Your task to perform on an android device: Search for "lg ultragear" on ebay, select the first entry, add it to the cart, then select checkout. Image 0: 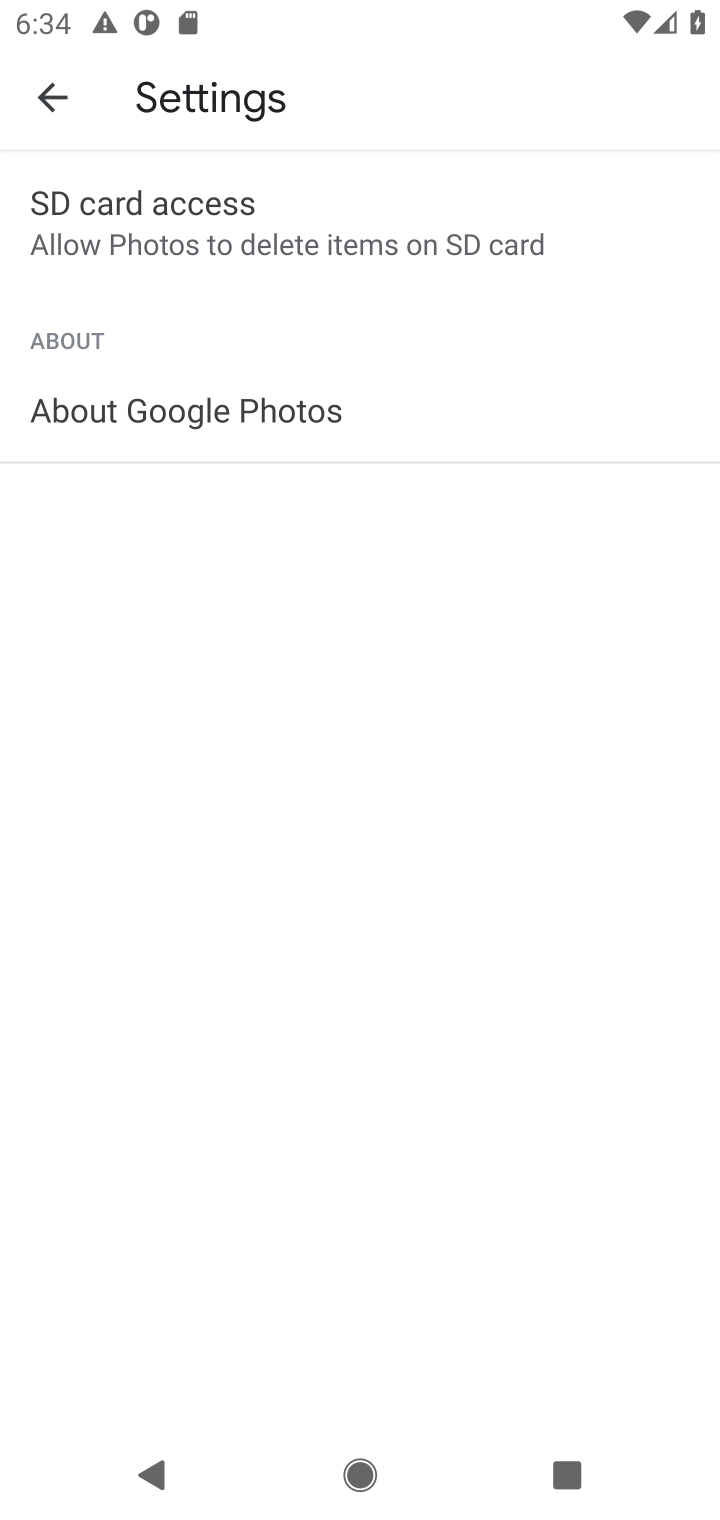
Step 0: press home button
Your task to perform on an android device: Search for "lg ultragear" on ebay, select the first entry, add it to the cart, then select checkout. Image 1: 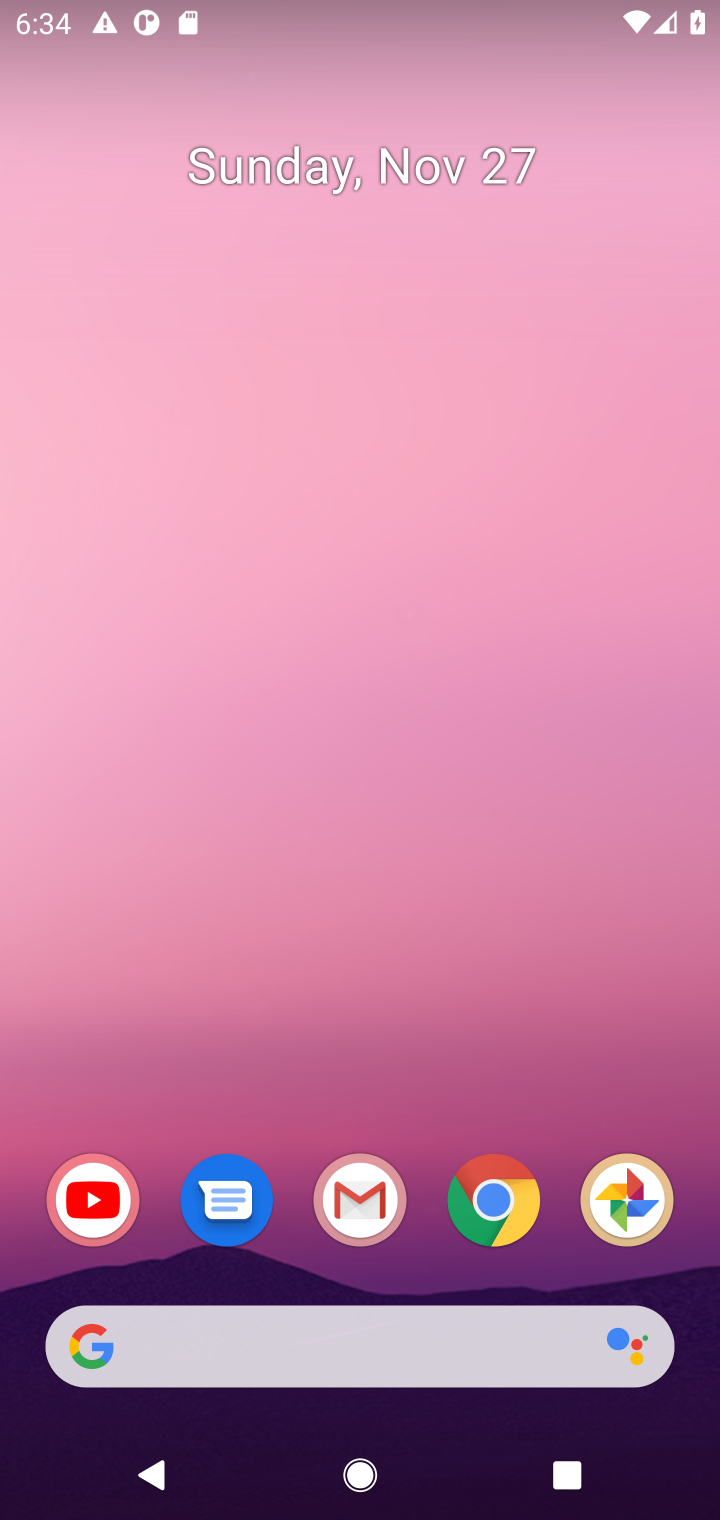
Step 1: click (499, 1222)
Your task to perform on an android device: Search for "lg ultragear" on ebay, select the first entry, add it to the cart, then select checkout. Image 2: 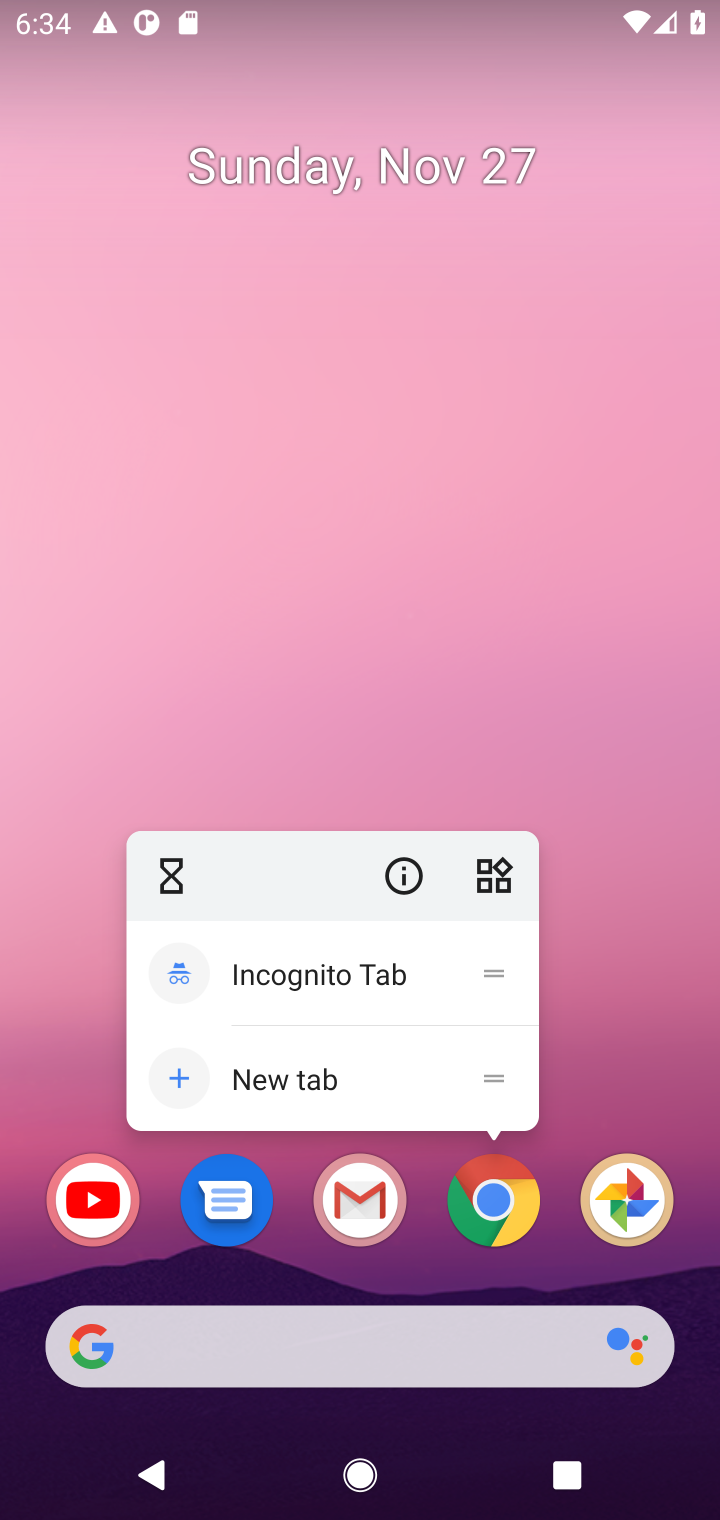
Step 2: click (493, 1211)
Your task to perform on an android device: Search for "lg ultragear" on ebay, select the first entry, add it to the cart, then select checkout. Image 3: 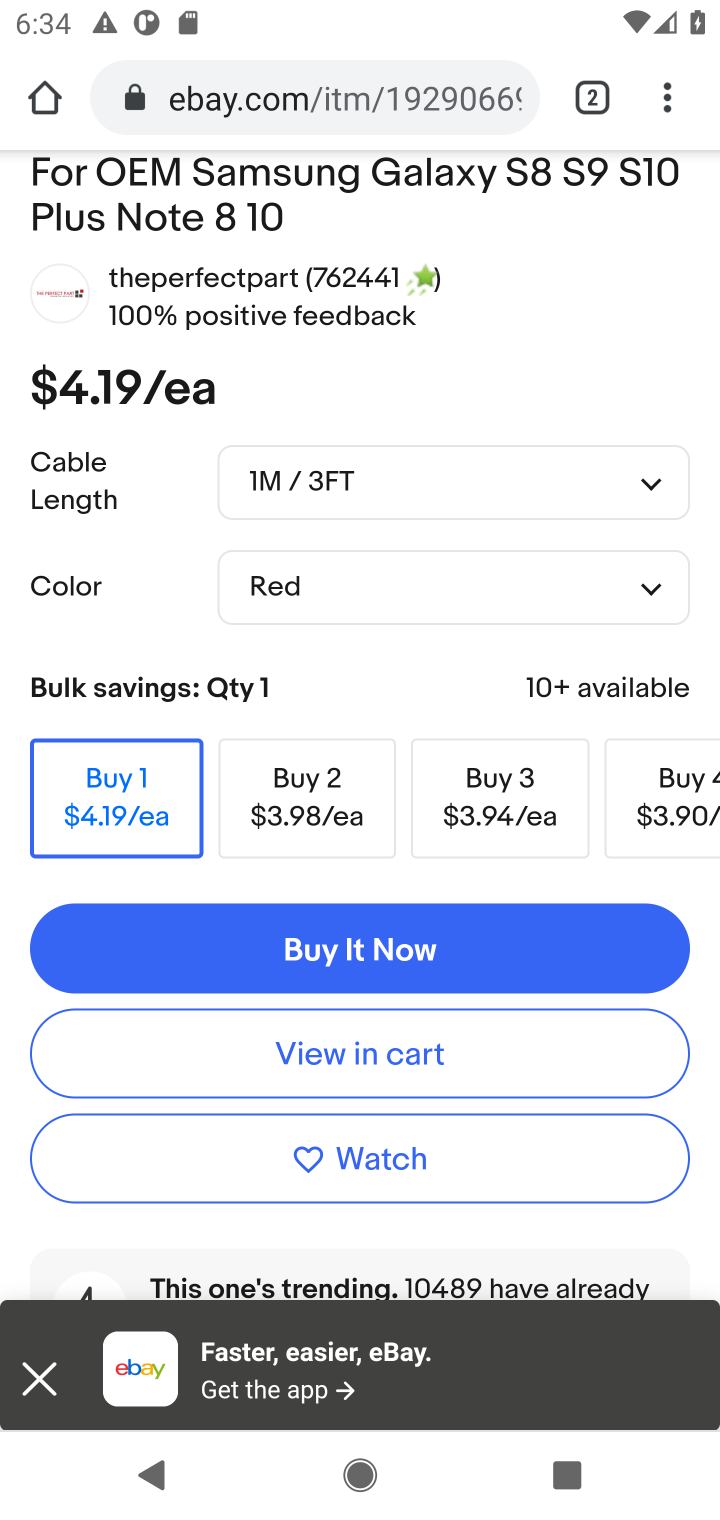
Step 3: drag from (555, 276) to (466, 977)
Your task to perform on an android device: Search for "lg ultragear" on ebay, select the first entry, add it to the cart, then select checkout. Image 4: 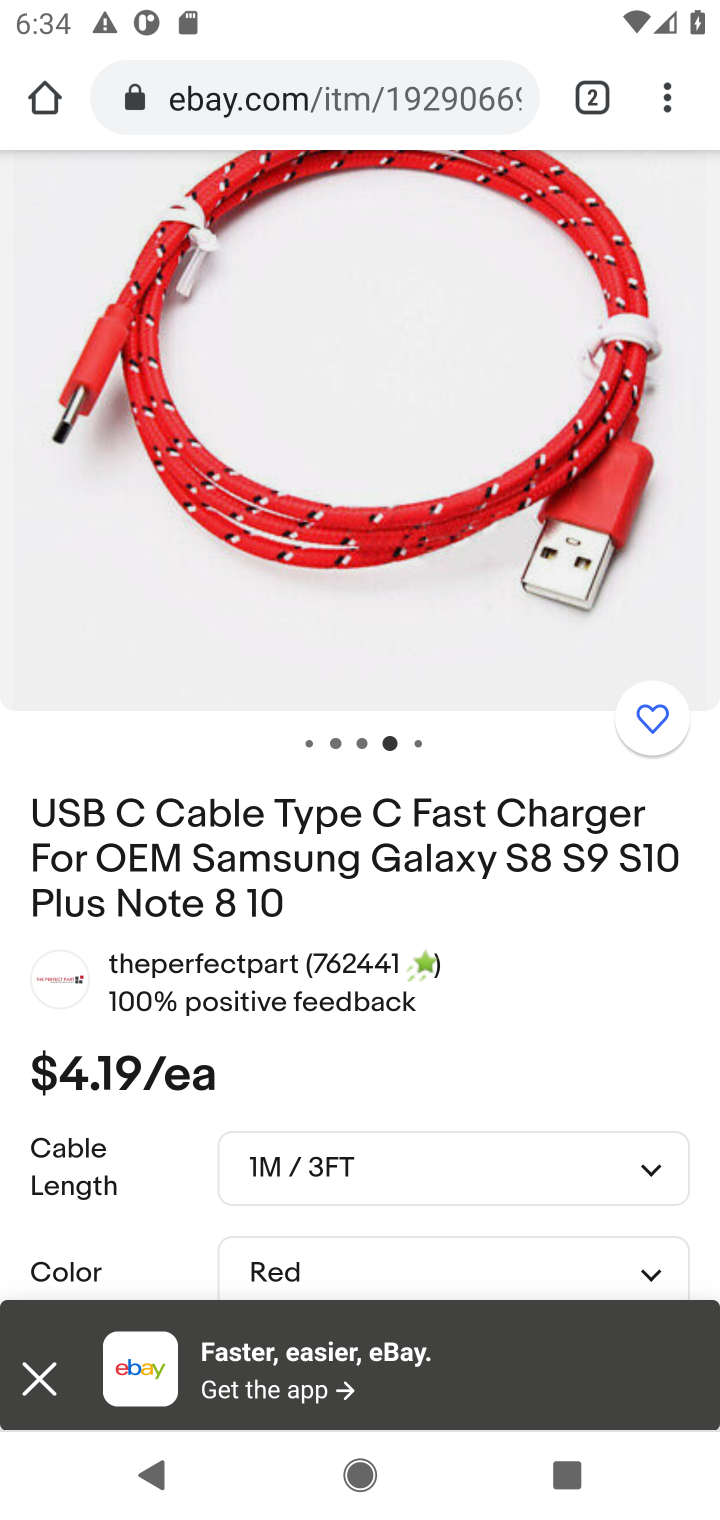
Step 4: drag from (486, 570) to (428, 1107)
Your task to perform on an android device: Search for "lg ultragear" on ebay, select the first entry, add it to the cart, then select checkout. Image 5: 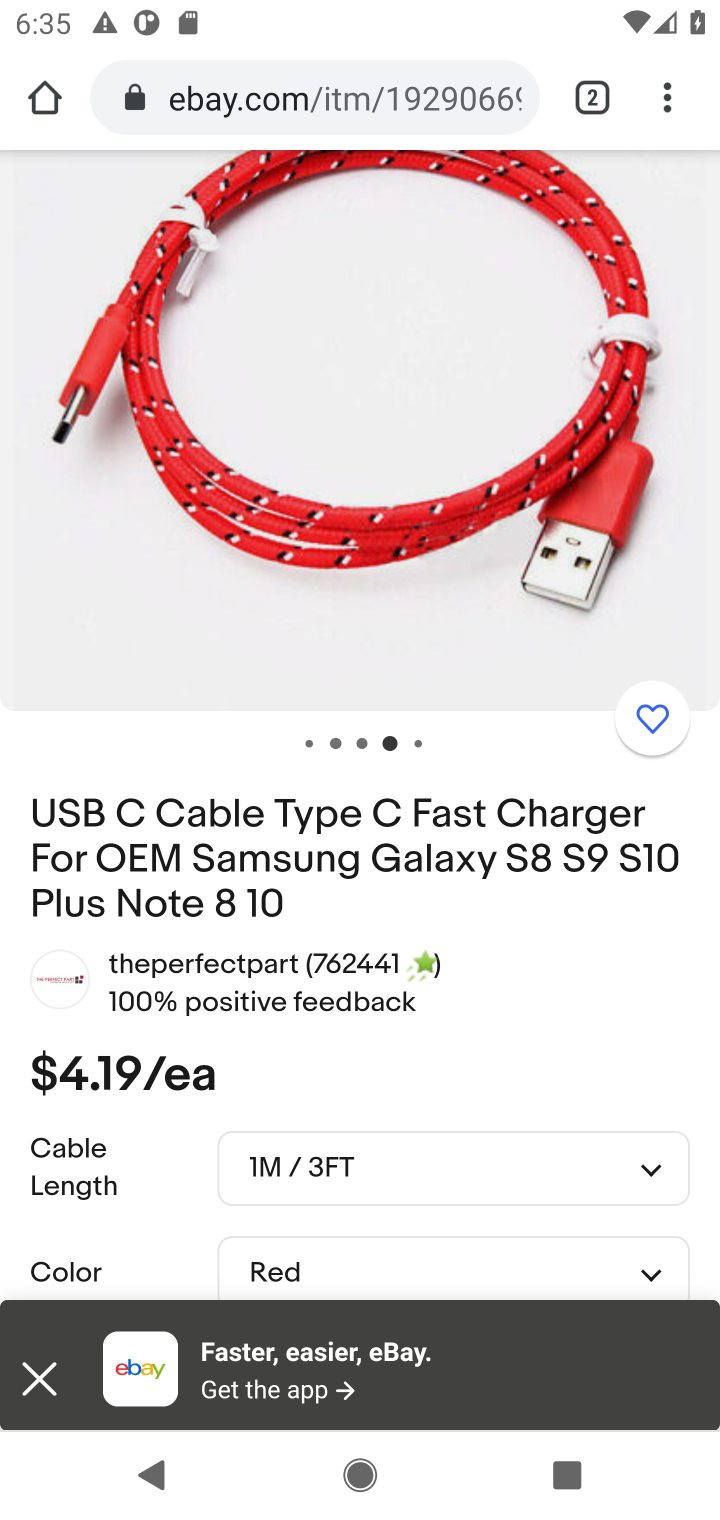
Step 5: drag from (331, 480) to (370, 1023)
Your task to perform on an android device: Search for "lg ultragear" on ebay, select the first entry, add it to the cart, then select checkout. Image 6: 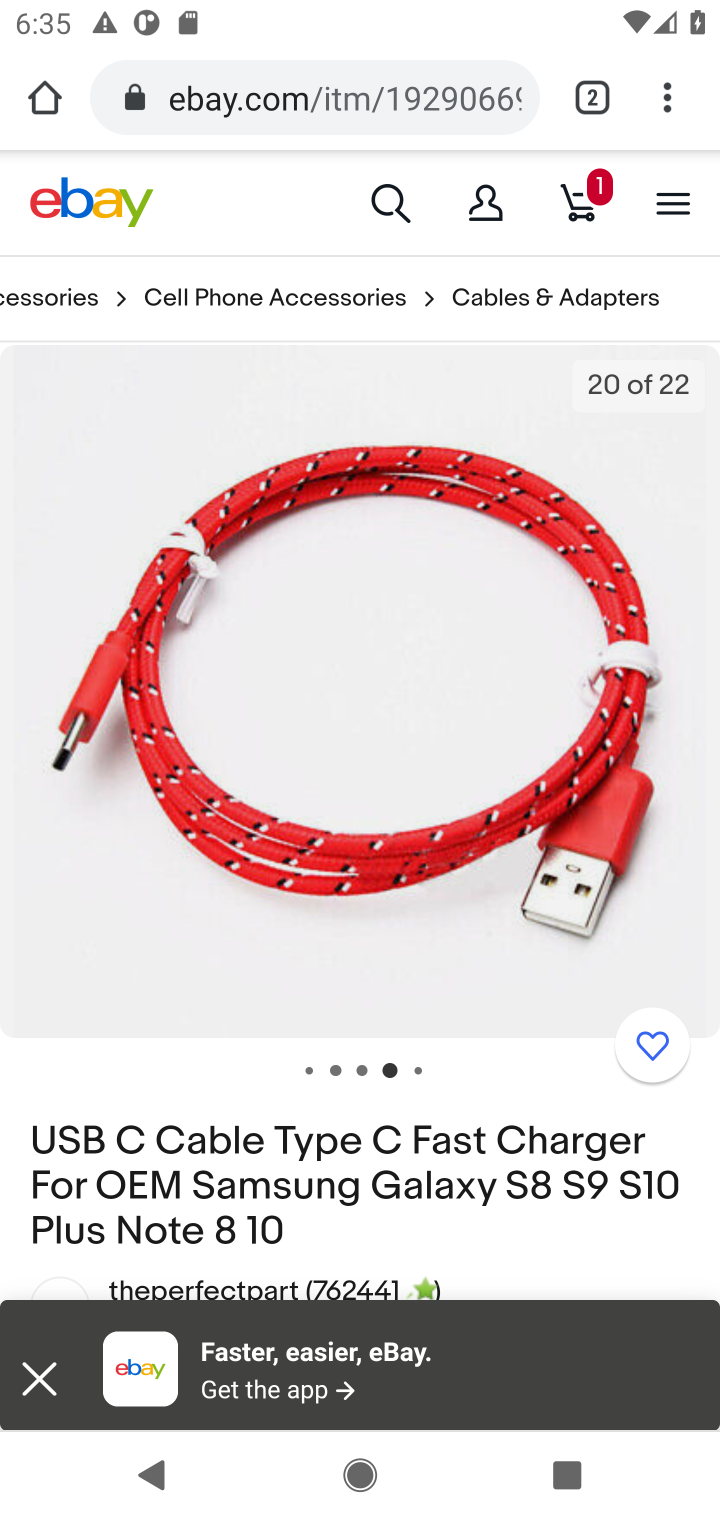
Step 6: click (382, 205)
Your task to perform on an android device: Search for "lg ultragear" on ebay, select the first entry, add it to the cart, then select checkout. Image 7: 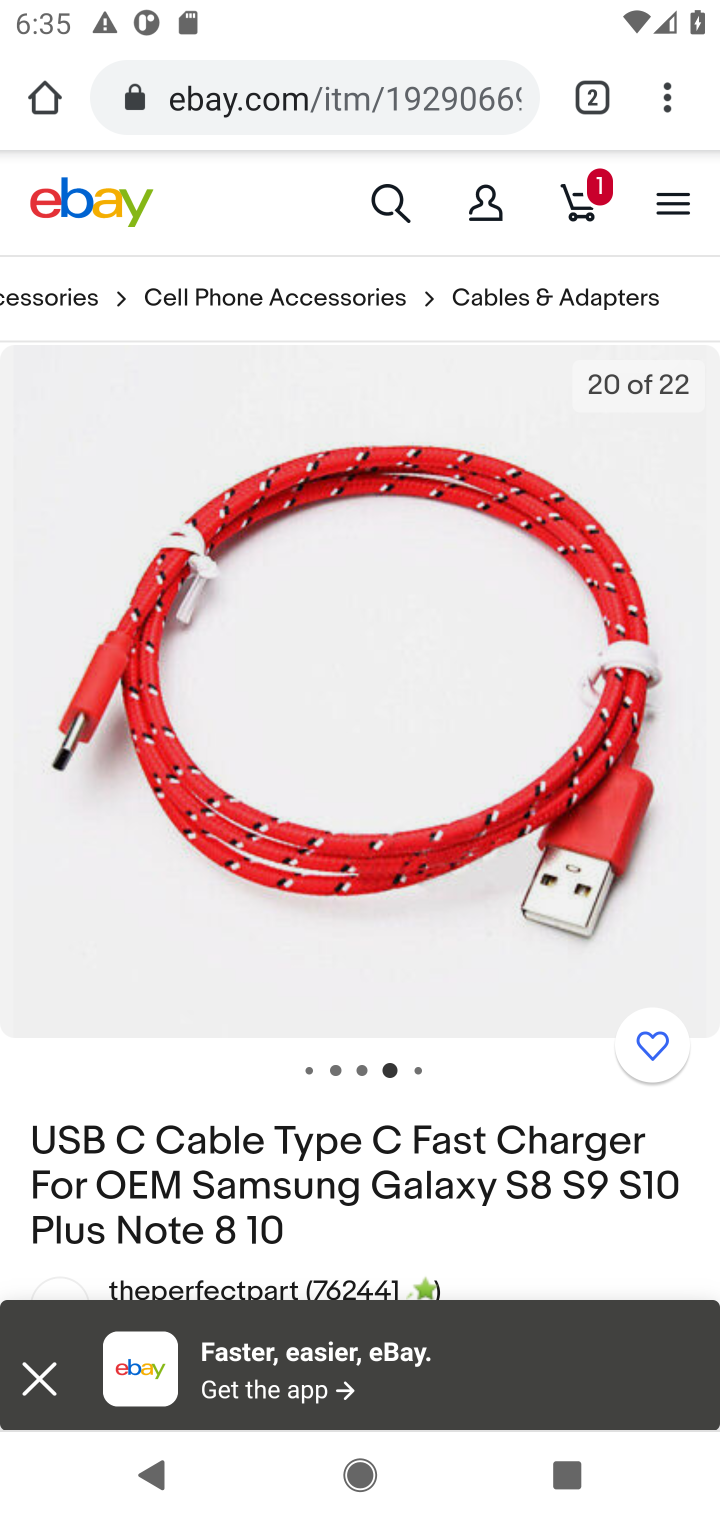
Step 7: click (390, 200)
Your task to perform on an android device: Search for "lg ultragear" on ebay, select the first entry, add it to the cart, then select checkout. Image 8: 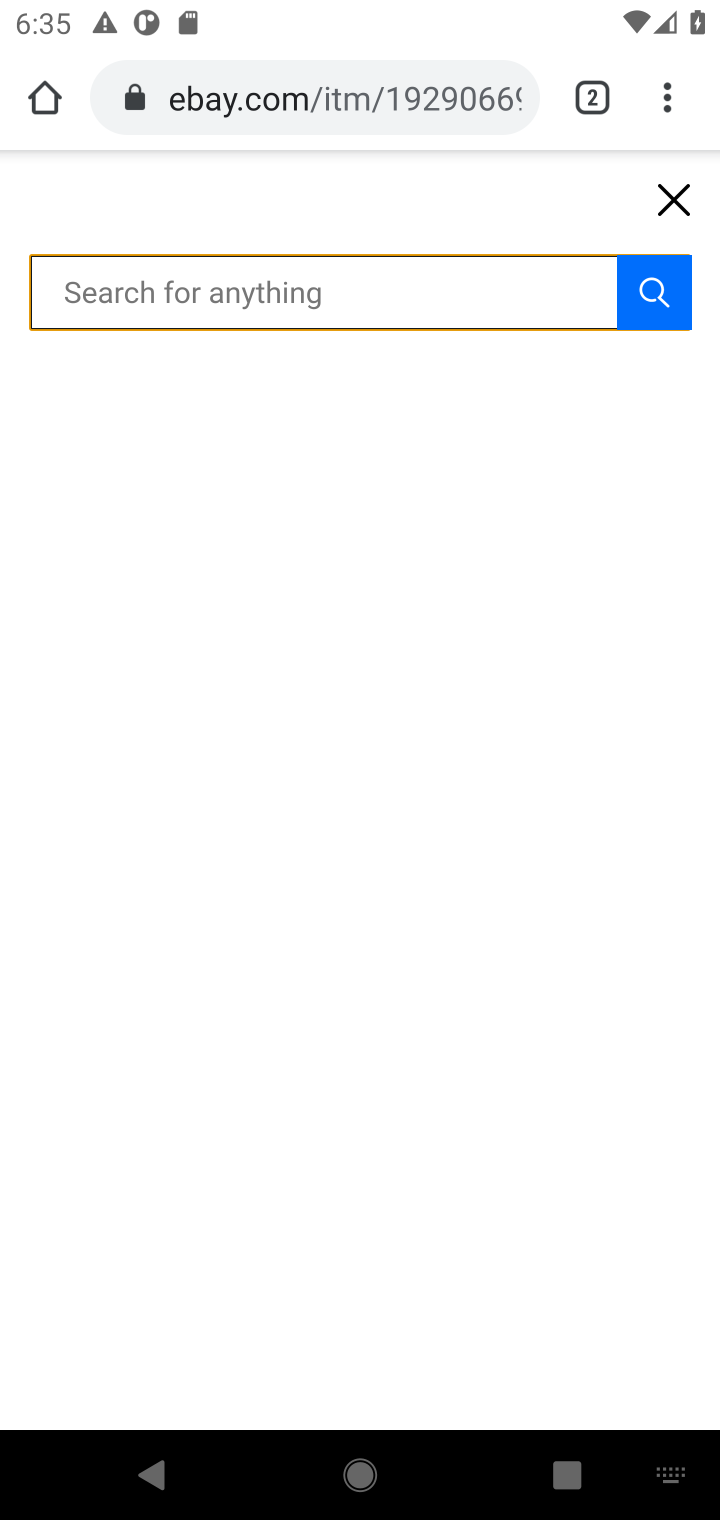
Step 8: type "lg ultragear"
Your task to perform on an android device: Search for "lg ultragear" on ebay, select the first entry, add it to the cart, then select checkout. Image 9: 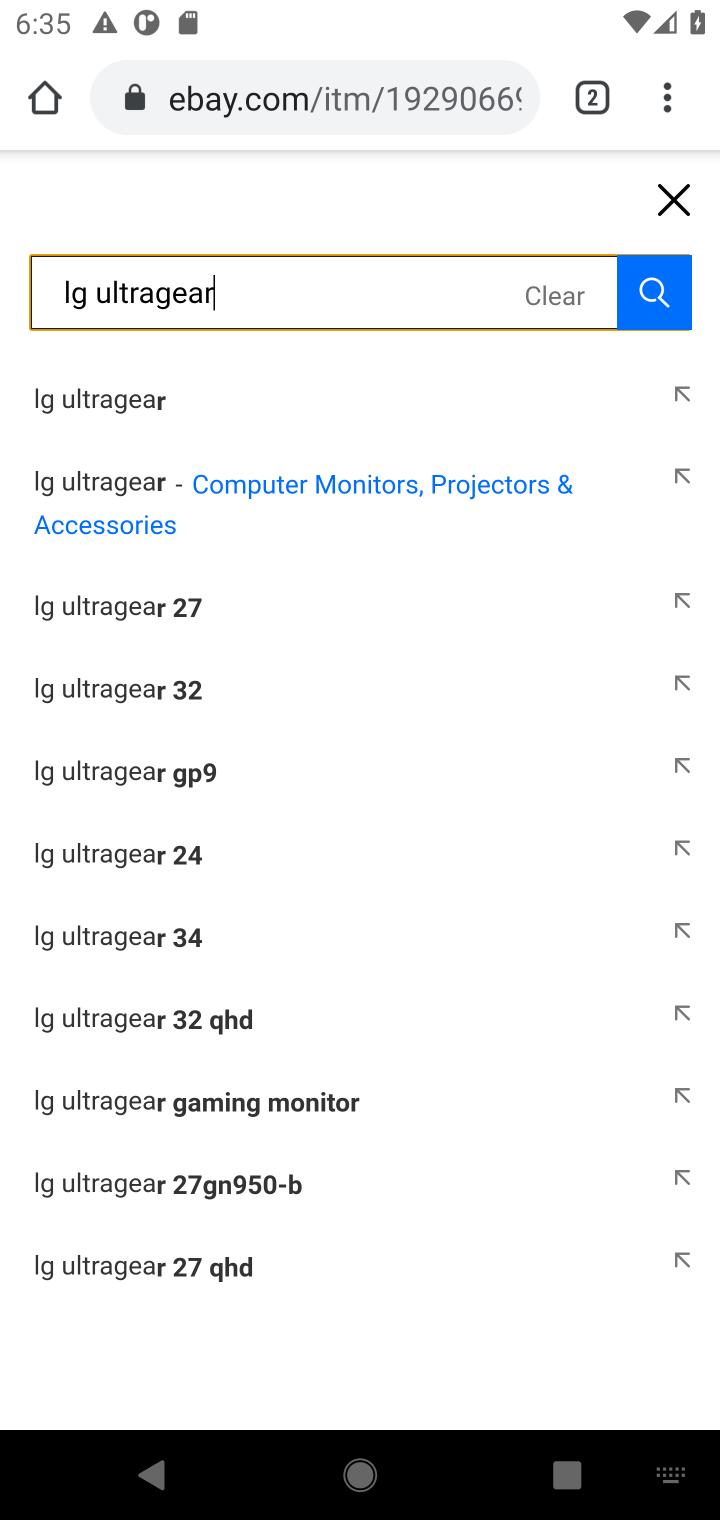
Step 9: click (87, 403)
Your task to perform on an android device: Search for "lg ultragear" on ebay, select the first entry, add it to the cart, then select checkout. Image 10: 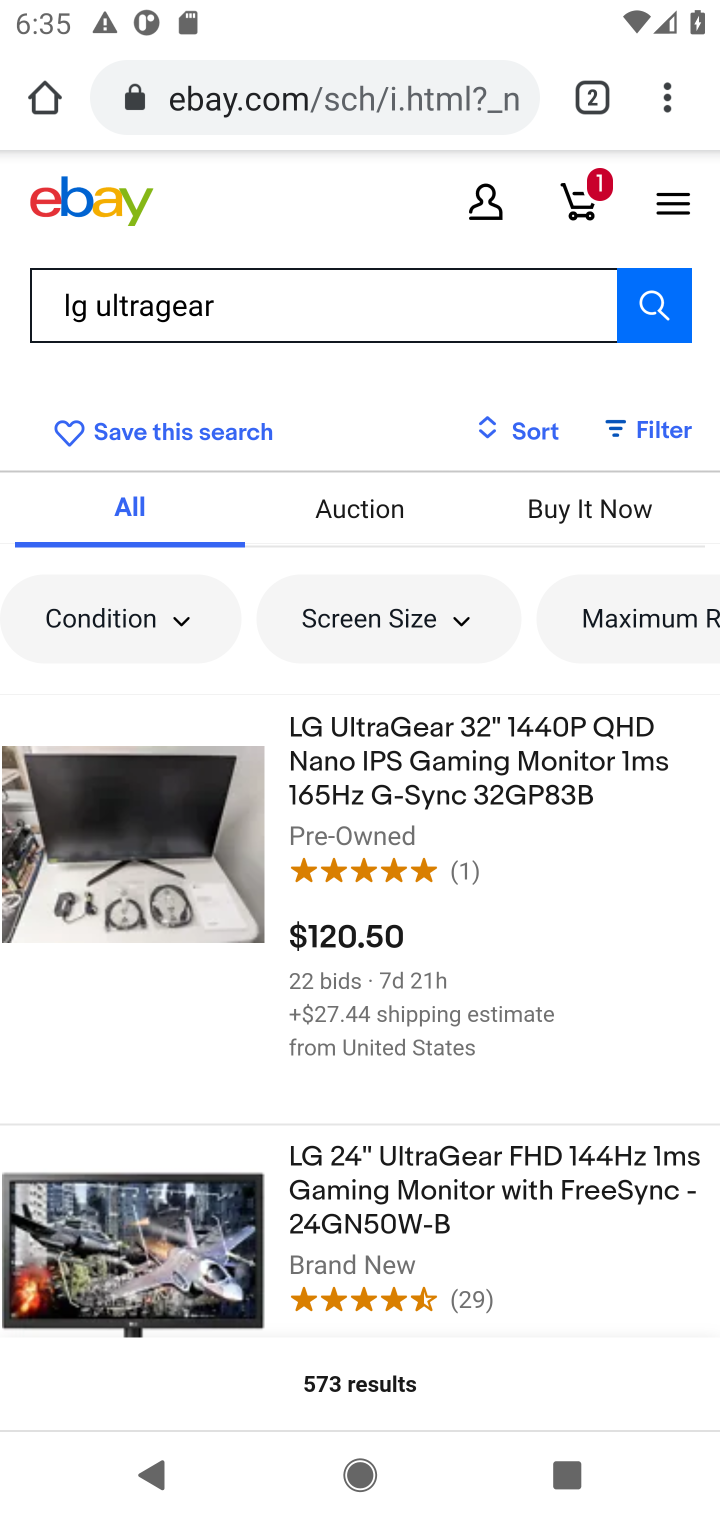
Step 10: click (172, 895)
Your task to perform on an android device: Search for "lg ultragear" on ebay, select the first entry, add it to the cart, then select checkout. Image 11: 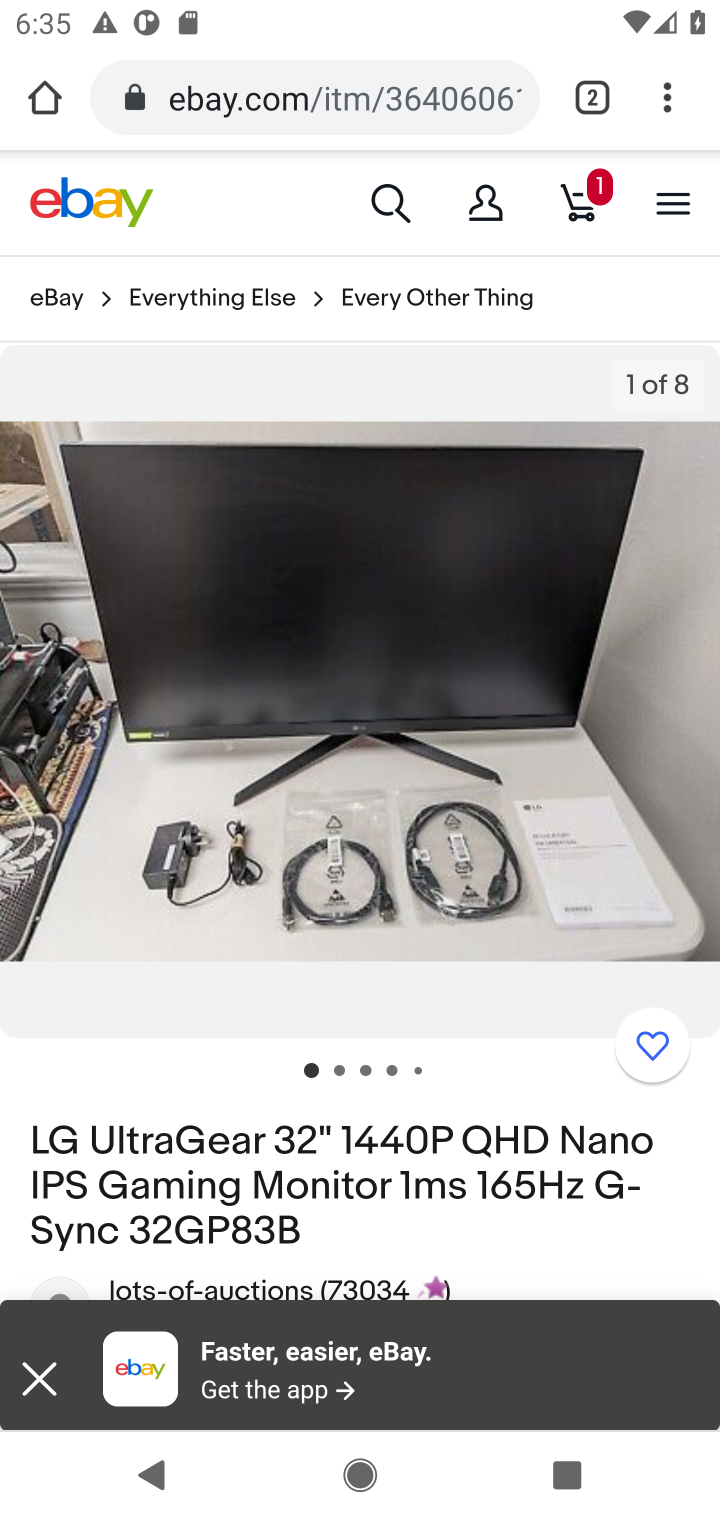
Step 11: task complete